Your task to perform on an android device: Search for Italian restaurants on Maps Image 0: 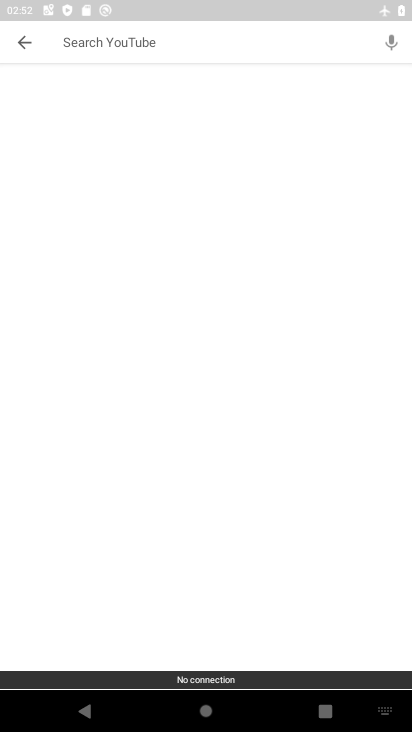
Step 0: press home button
Your task to perform on an android device: Search for Italian restaurants on Maps Image 1: 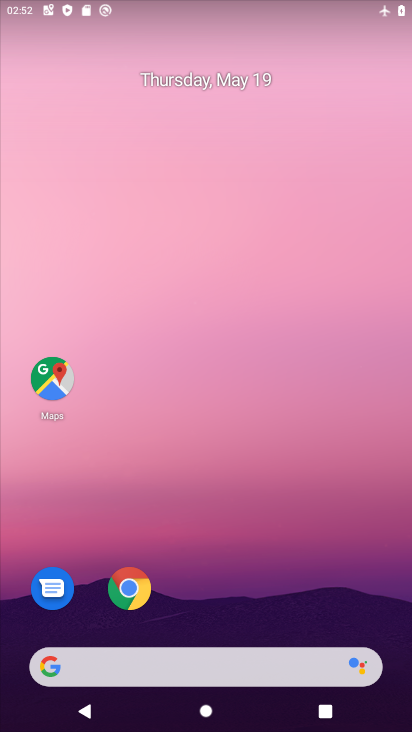
Step 1: click (52, 380)
Your task to perform on an android device: Search for Italian restaurants on Maps Image 2: 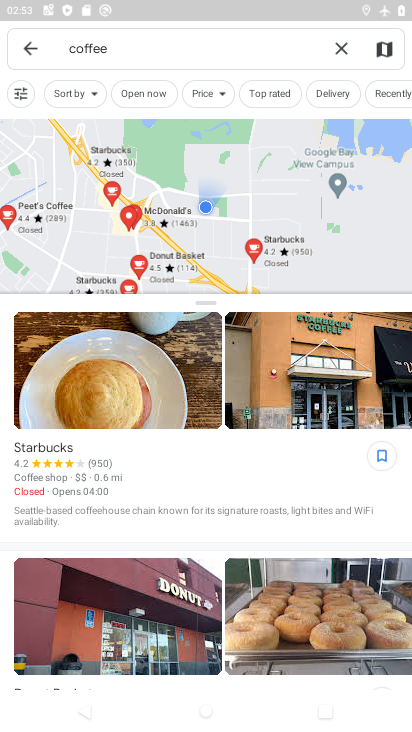
Step 2: click (343, 46)
Your task to perform on an android device: Search for Italian restaurants on Maps Image 3: 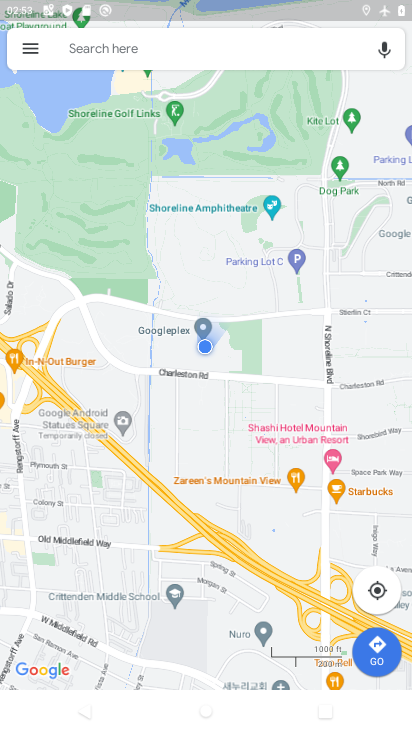
Step 3: click (166, 45)
Your task to perform on an android device: Search for Italian restaurants on Maps Image 4: 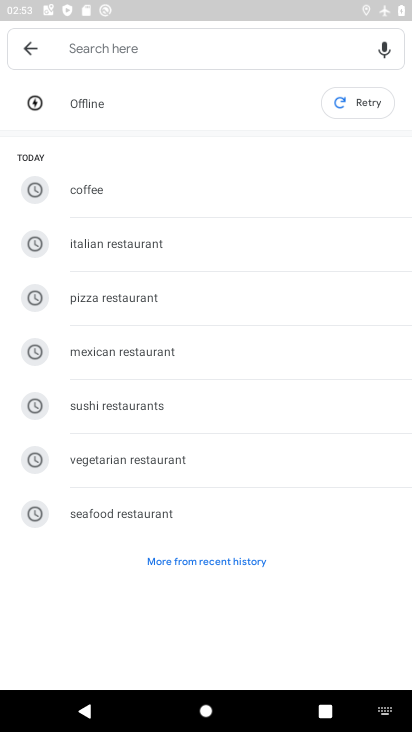
Step 4: click (102, 235)
Your task to perform on an android device: Search for Italian restaurants on Maps Image 5: 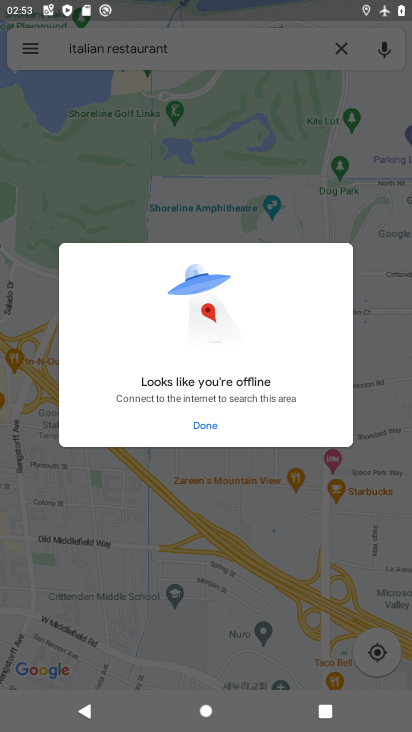
Step 5: task complete